Your task to perform on an android device: Open location settings Image 0: 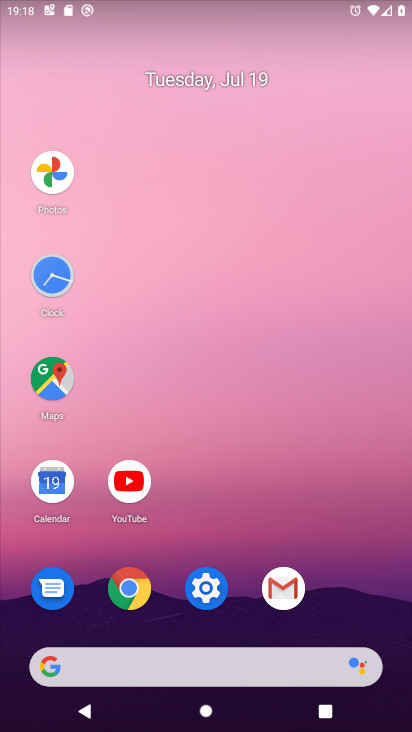
Step 0: click (205, 585)
Your task to perform on an android device: Open location settings Image 1: 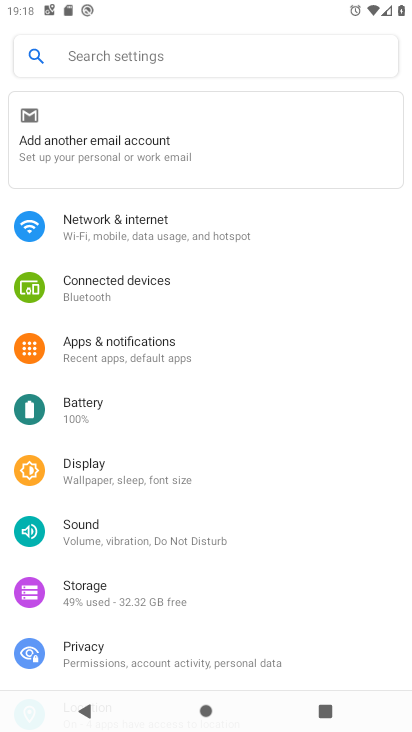
Step 1: drag from (287, 560) to (243, 221)
Your task to perform on an android device: Open location settings Image 2: 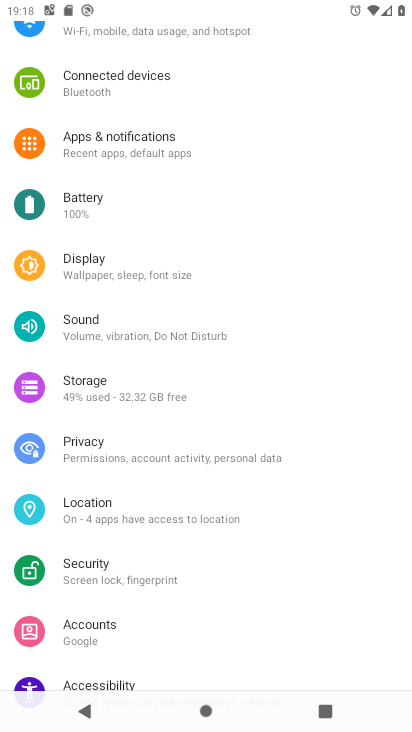
Step 2: click (86, 503)
Your task to perform on an android device: Open location settings Image 3: 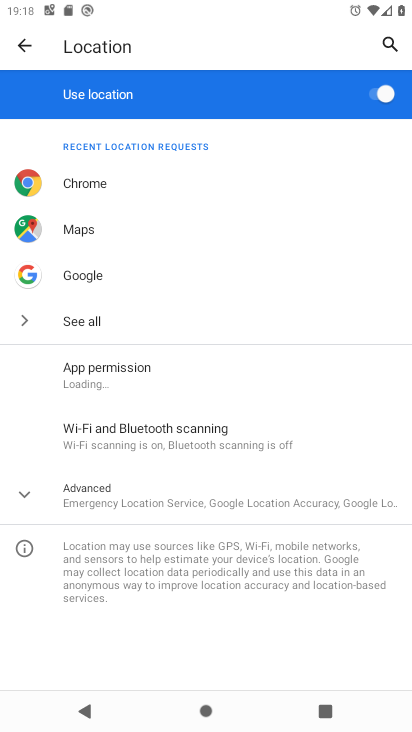
Step 3: task complete